Your task to perform on an android device: see creations saved in the google photos Image 0: 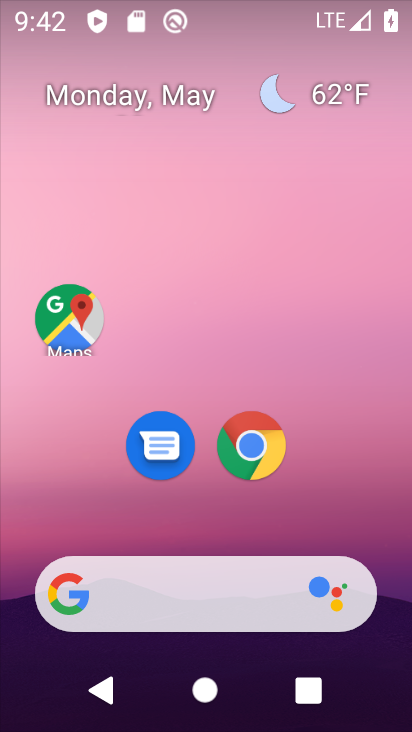
Step 0: drag from (394, 597) to (252, 7)
Your task to perform on an android device: see creations saved in the google photos Image 1: 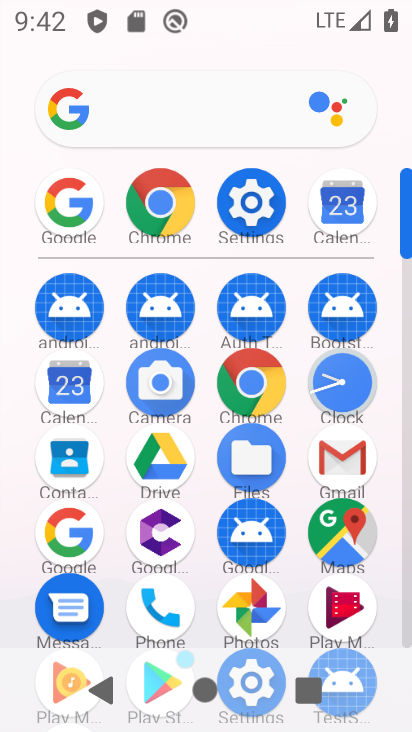
Step 1: click (244, 611)
Your task to perform on an android device: see creations saved in the google photos Image 2: 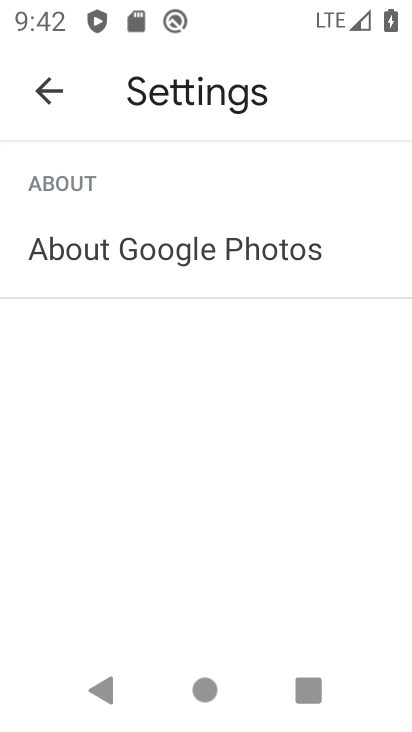
Step 2: press back button
Your task to perform on an android device: see creations saved in the google photos Image 3: 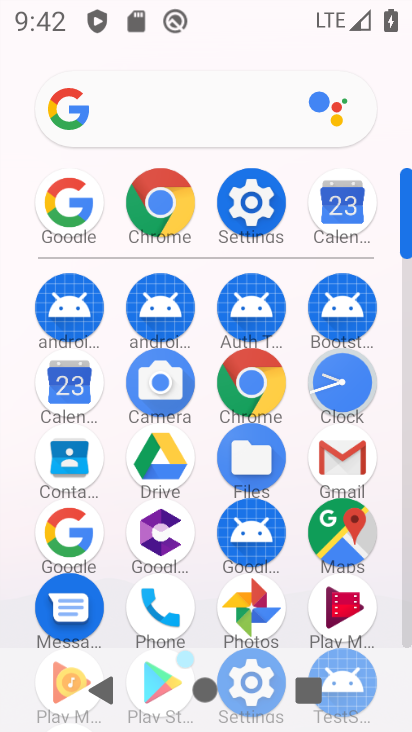
Step 3: click (286, 604)
Your task to perform on an android device: see creations saved in the google photos Image 4: 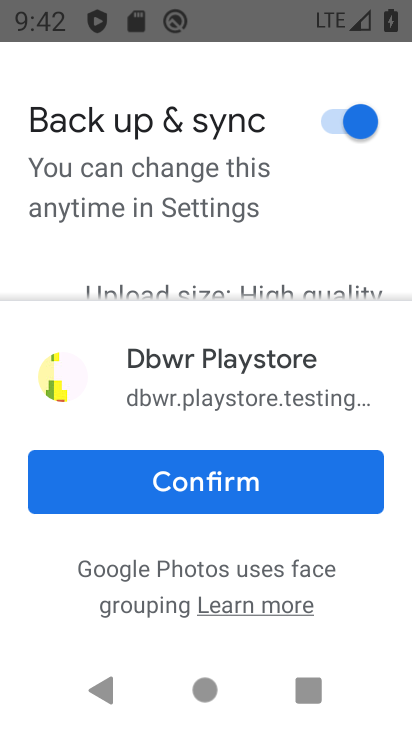
Step 4: click (240, 477)
Your task to perform on an android device: see creations saved in the google photos Image 5: 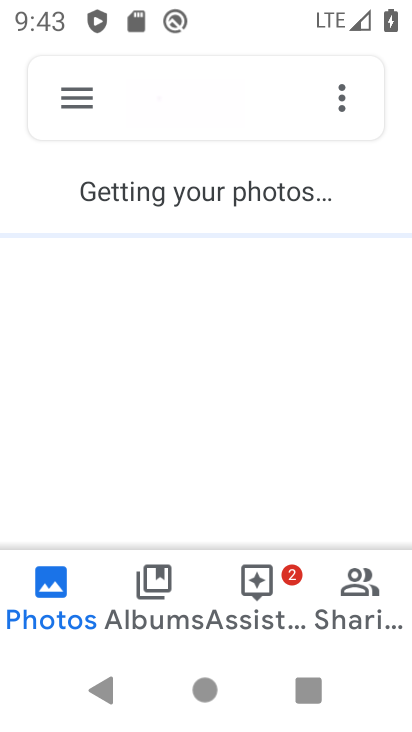
Step 5: click (64, 99)
Your task to perform on an android device: see creations saved in the google photos Image 6: 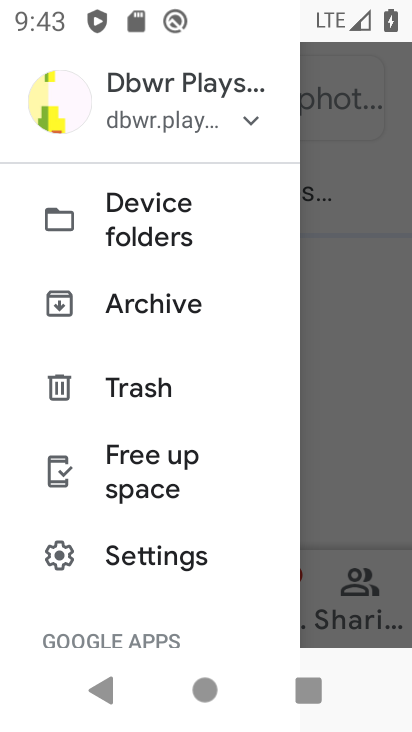
Step 6: press back button
Your task to perform on an android device: see creations saved in the google photos Image 7: 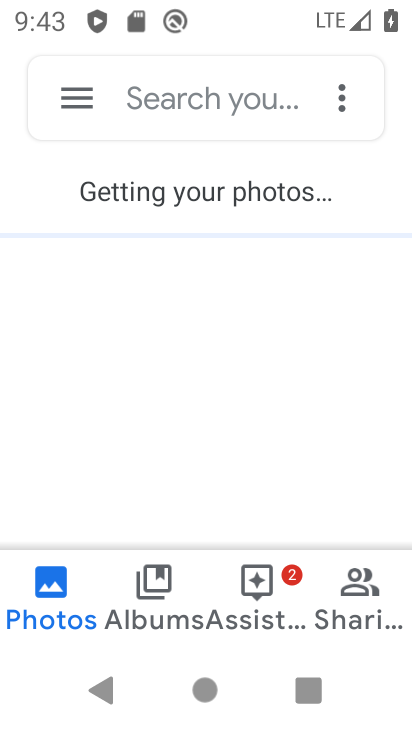
Step 7: click (231, 96)
Your task to perform on an android device: see creations saved in the google photos Image 8: 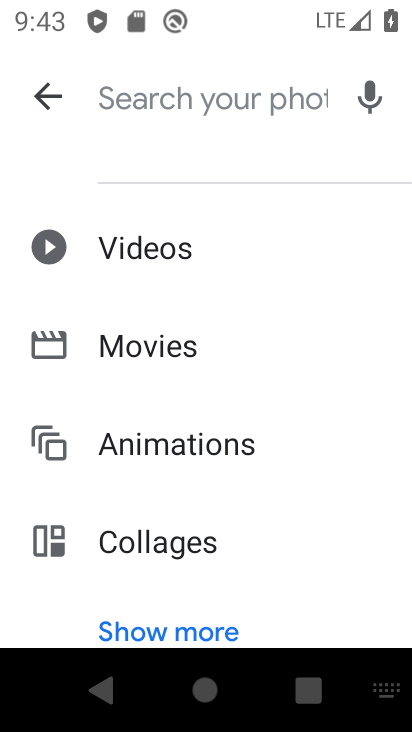
Step 8: drag from (193, 586) to (162, 140)
Your task to perform on an android device: see creations saved in the google photos Image 9: 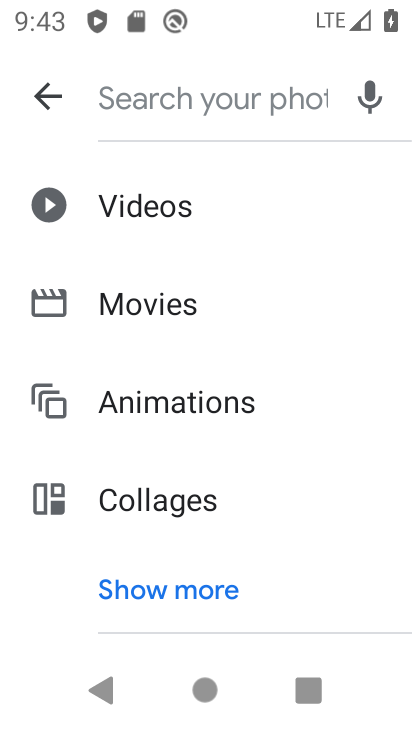
Step 9: click (188, 582)
Your task to perform on an android device: see creations saved in the google photos Image 10: 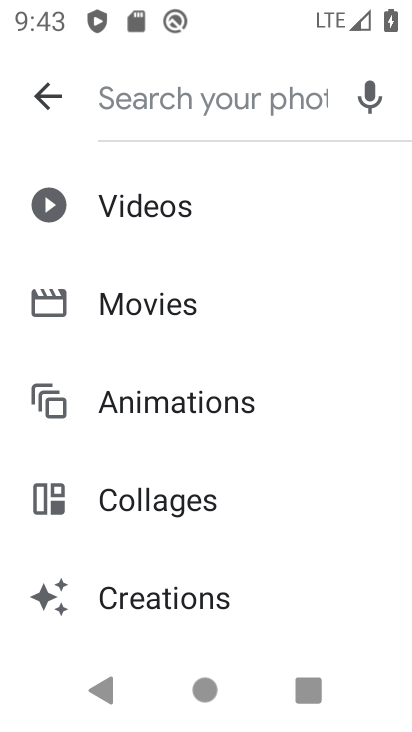
Step 10: drag from (202, 596) to (197, 261)
Your task to perform on an android device: see creations saved in the google photos Image 11: 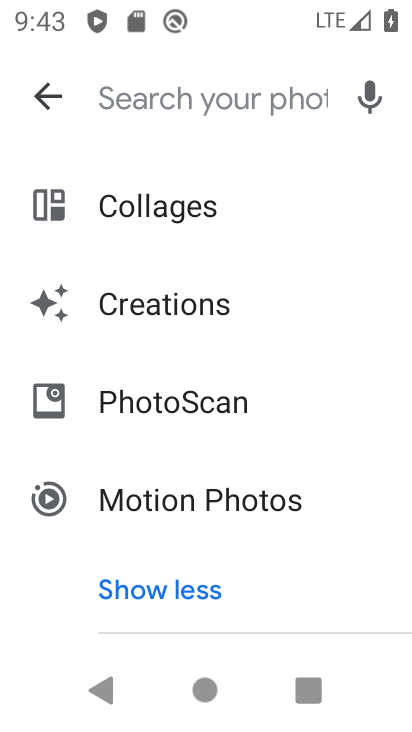
Step 11: click (182, 316)
Your task to perform on an android device: see creations saved in the google photos Image 12: 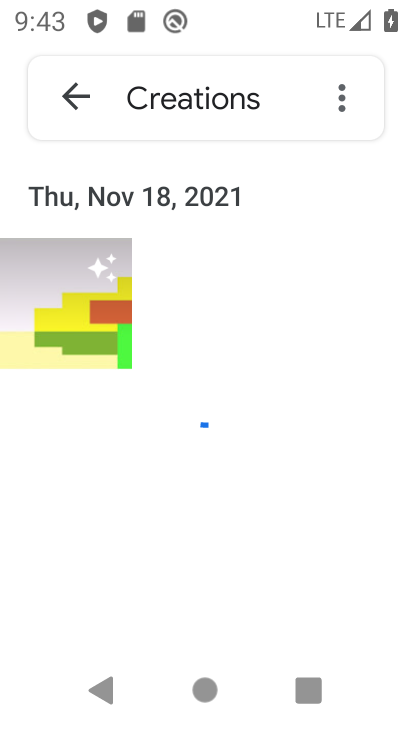
Step 12: task complete